Your task to perform on an android device: all mails in gmail Image 0: 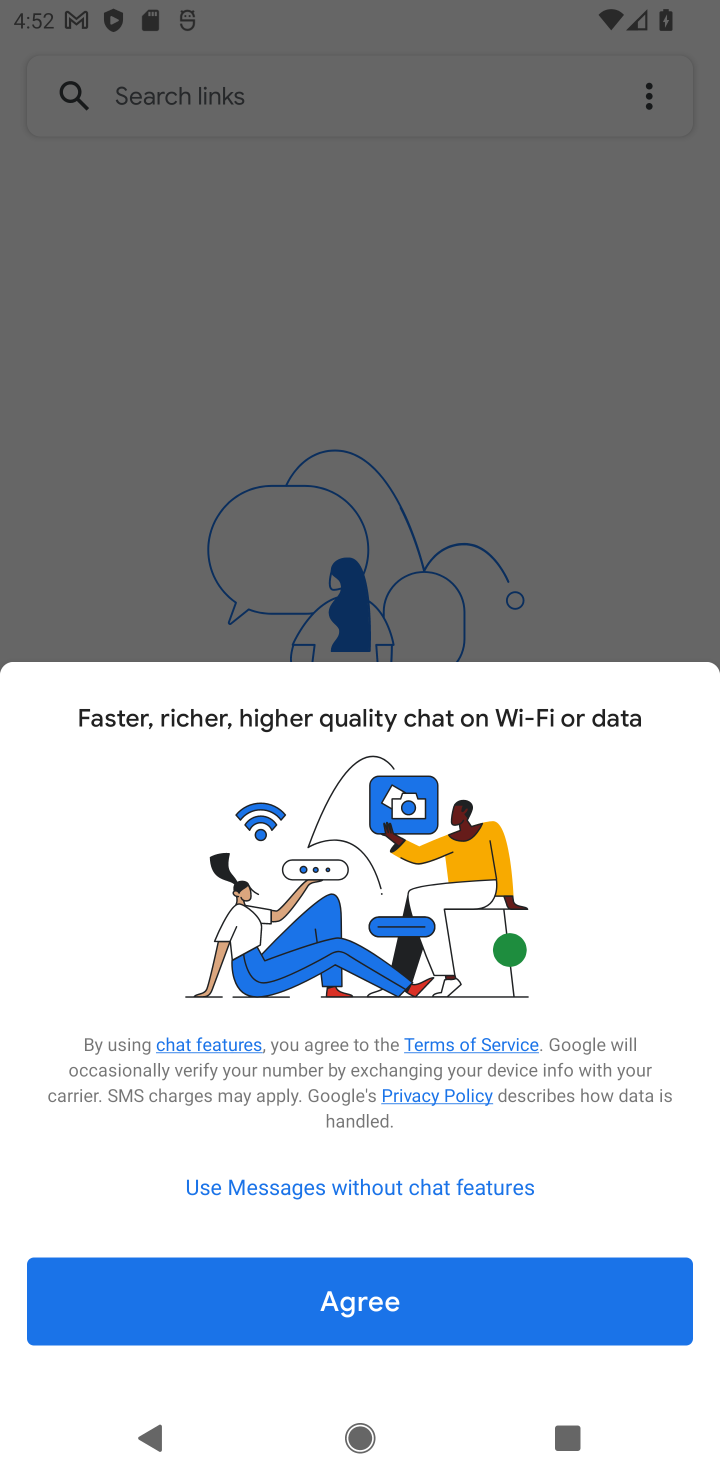
Step 0: press home button
Your task to perform on an android device: all mails in gmail Image 1: 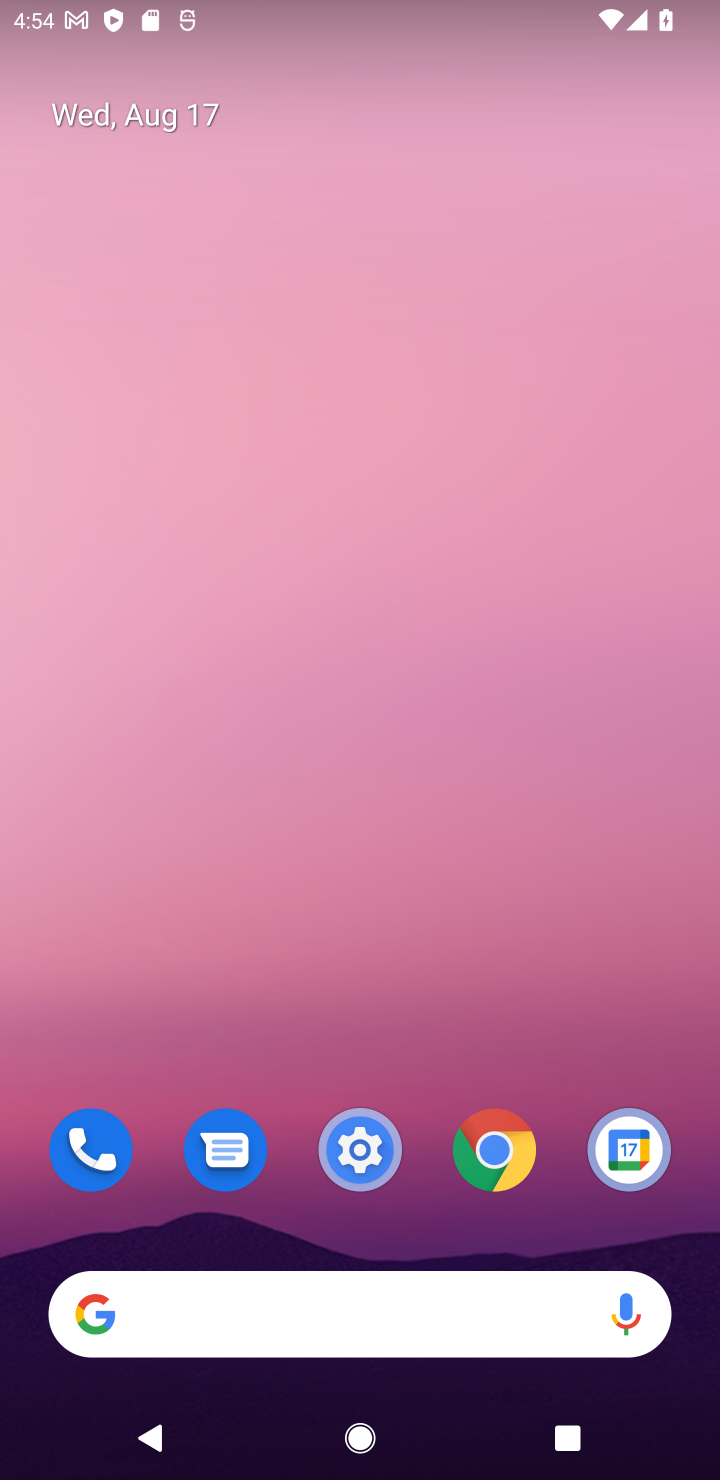
Step 1: drag from (548, 1225) to (345, 139)
Your task to perform on an android device: all mails in gmail Image 2: 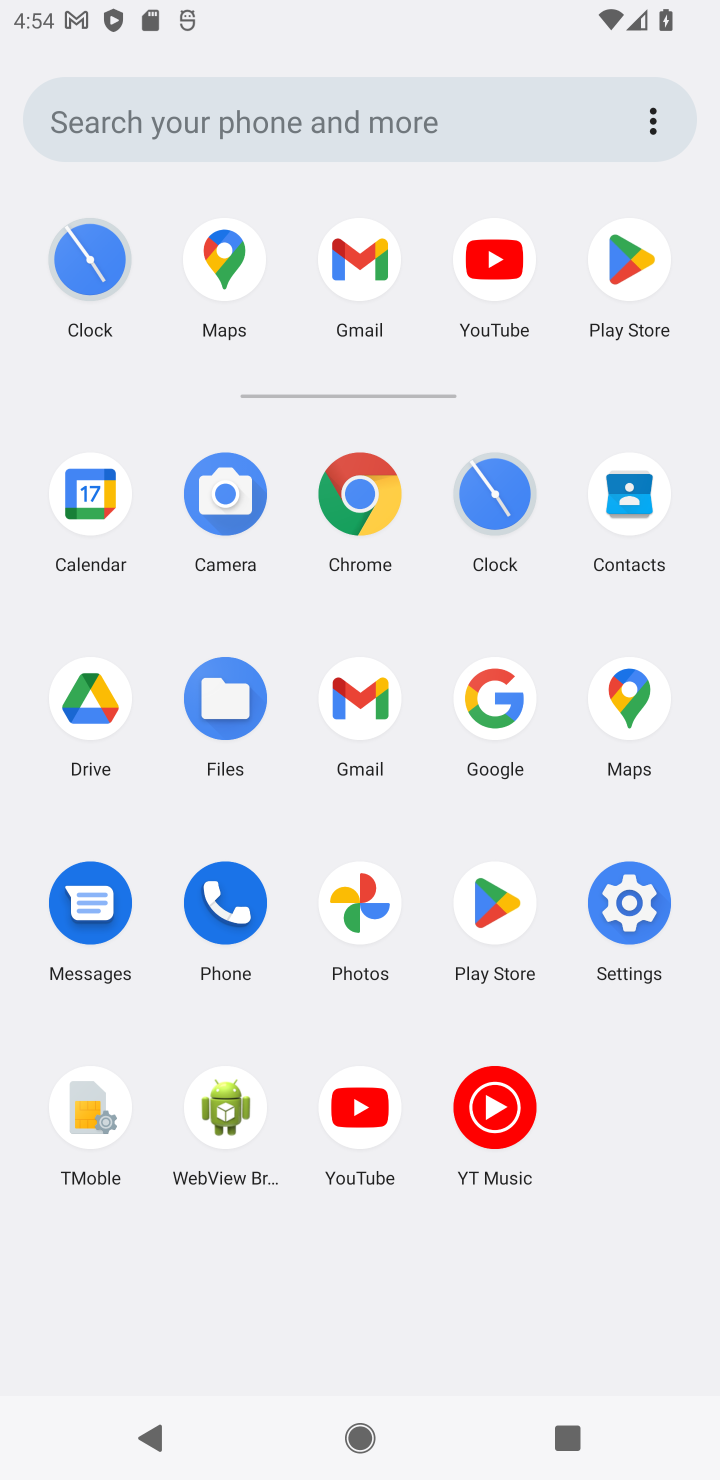
Step 2: click (380, 685)
Your task to perform on an android device: all mails in gmail Image 3: 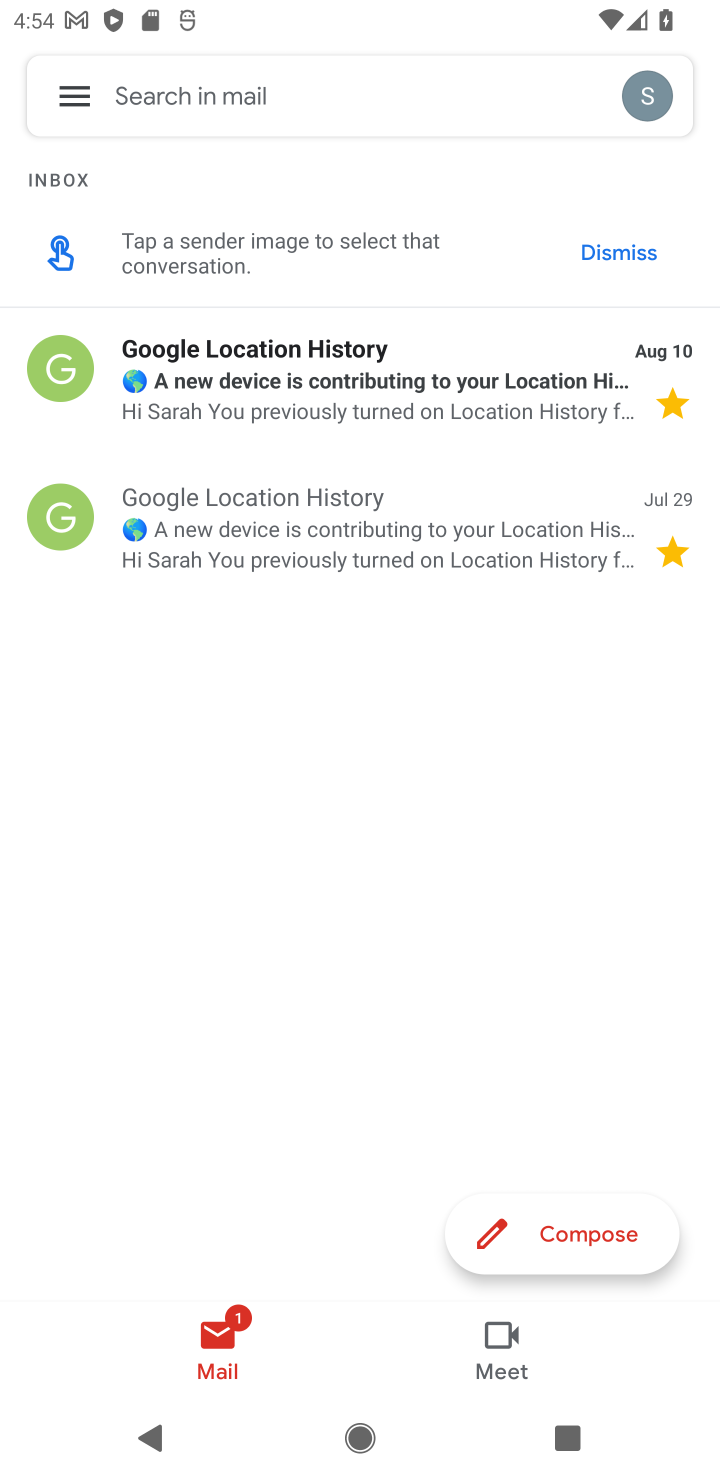
Step 3: click (74, 88)
Your task to perform on an android device: all mails in gmail Image 4: 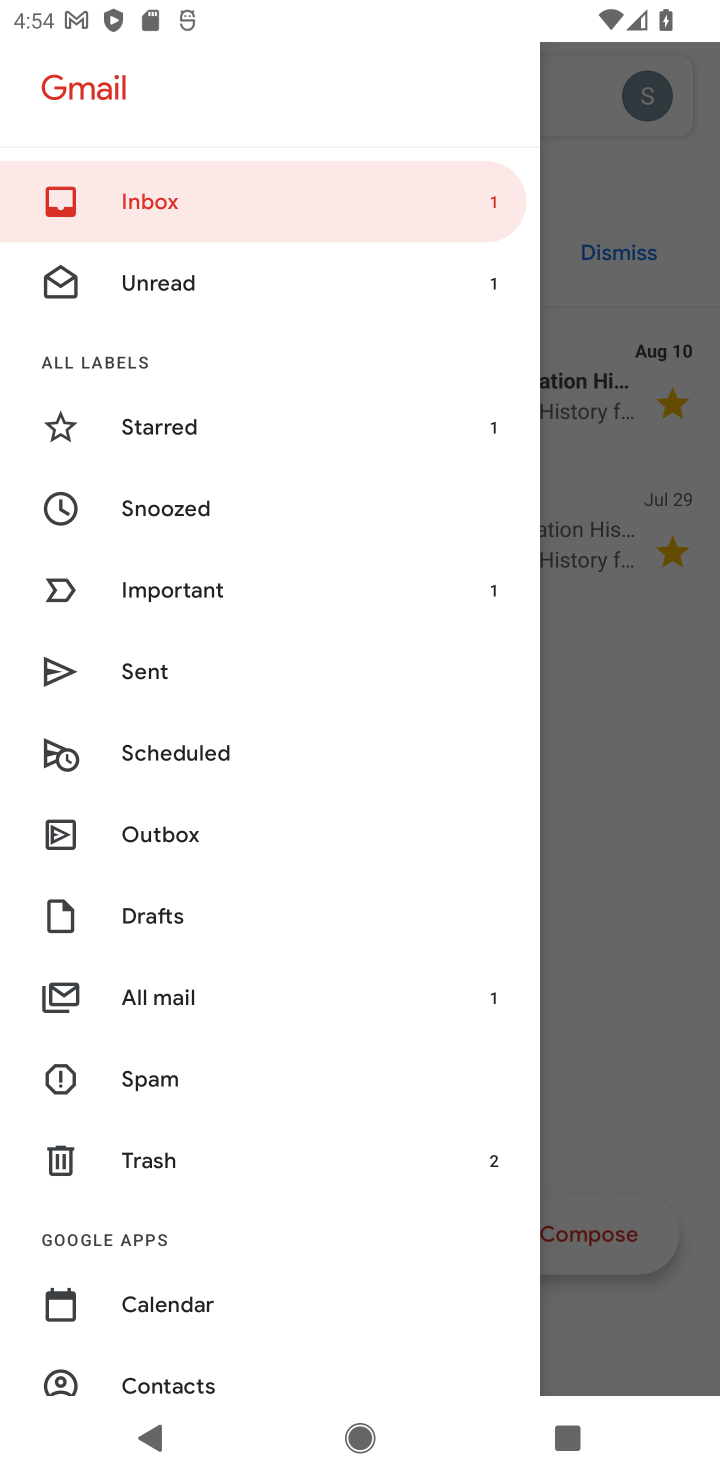
Step 4: click (169, 989)
Your task to perform on an android device: all mails in gmail Image 5: 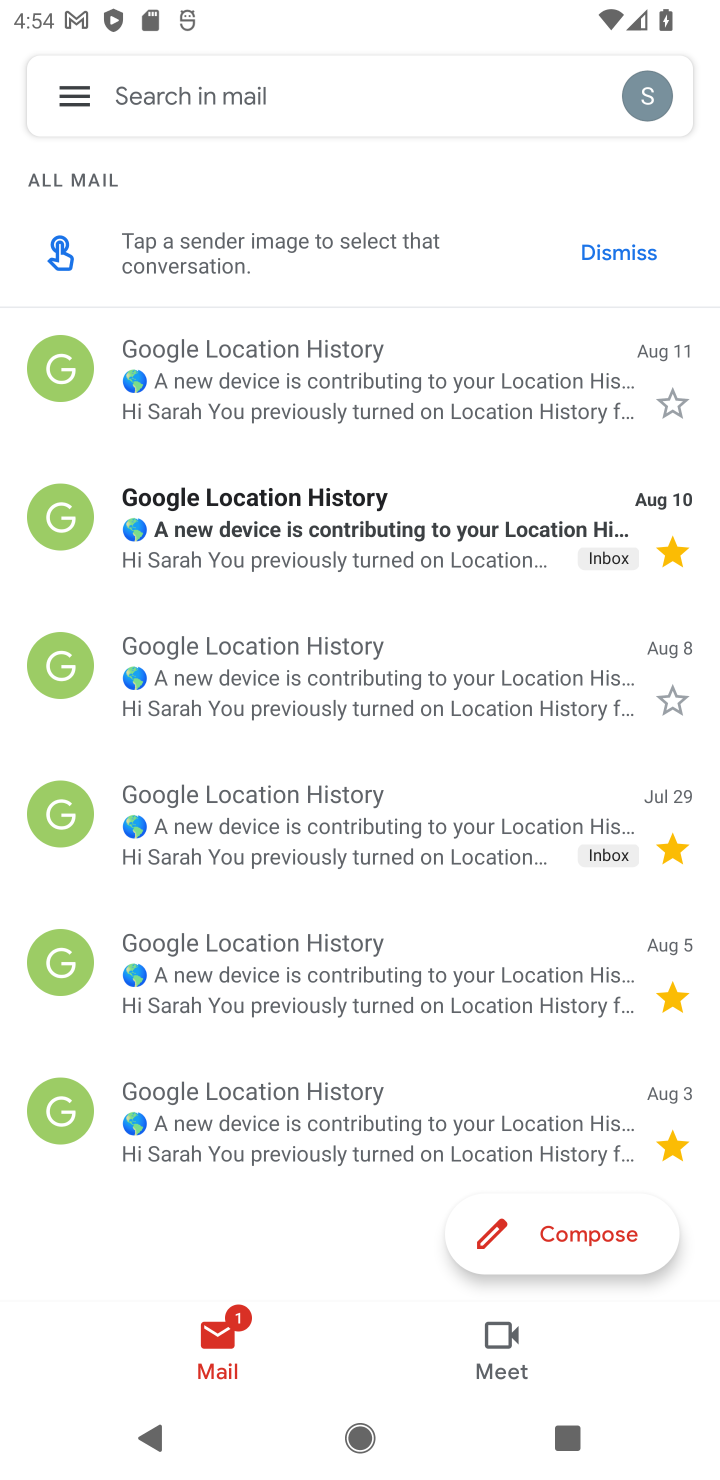
Step 5: task complete